Your task to perform on an android device: Go to Google maps Image 0: 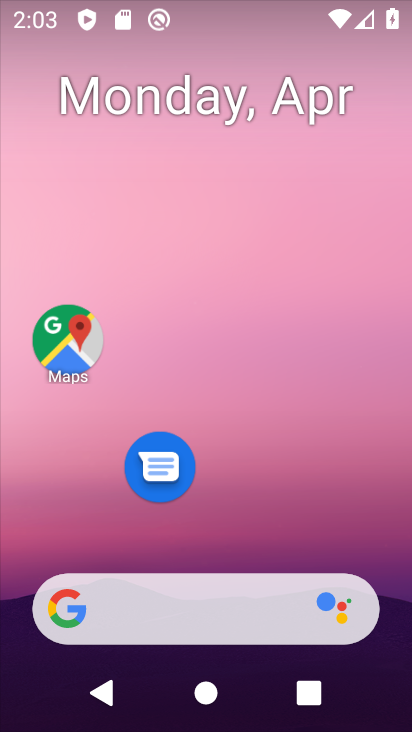
Step 0: drag from (276, 528) to (301, 51)
Your task to perform on an android device: Go to Google maps Image 1: 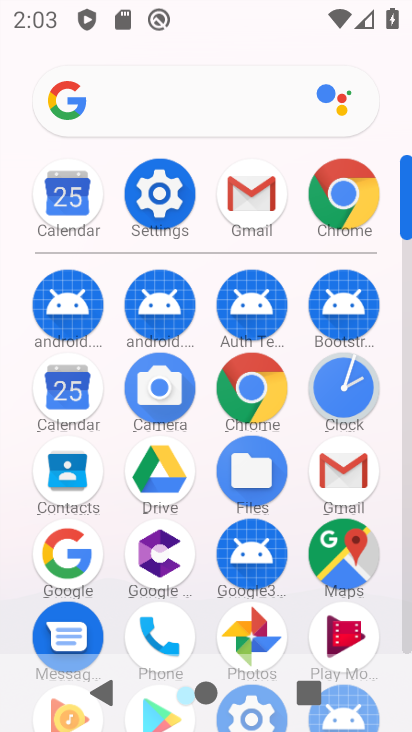
Step 1: click (334, 574)
Your task to perform on an android device: Go to Google maps Image 2: 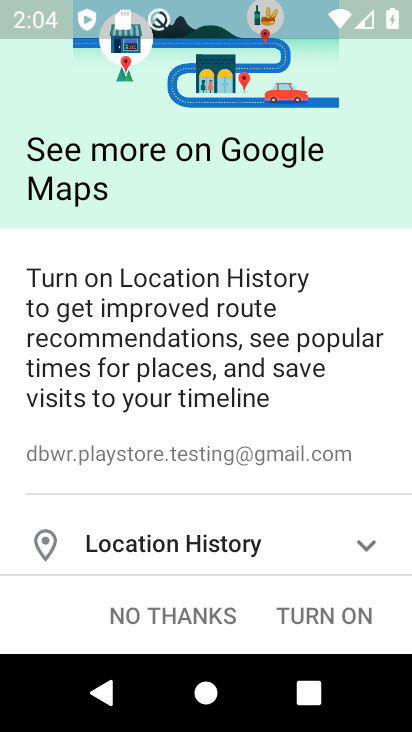
Step 2: click (179, 608)
Your task to perform on an android device: Go to Google maps Image 3: 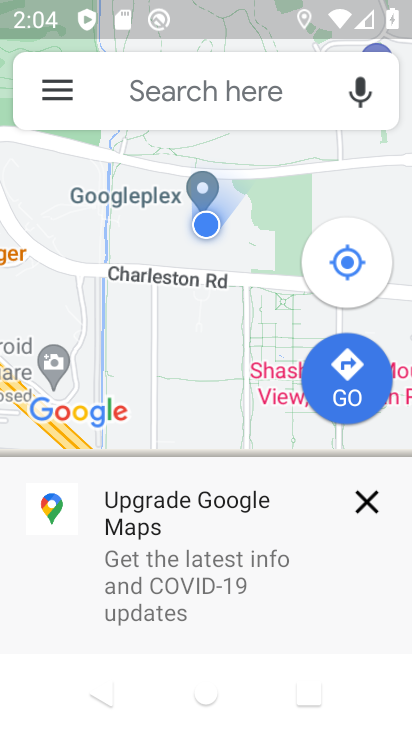
Step 3: task complete